Your task to perform on an android device: What's the weather today? Image 0: 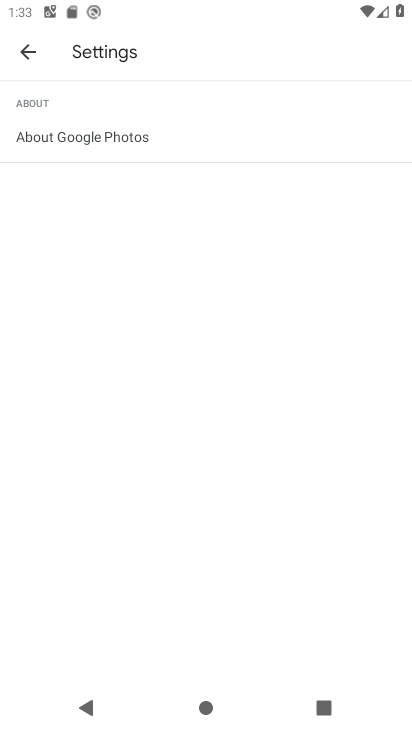
Step 0: press home button
Your task to perform on an android device: What's the weather today? Image 1: 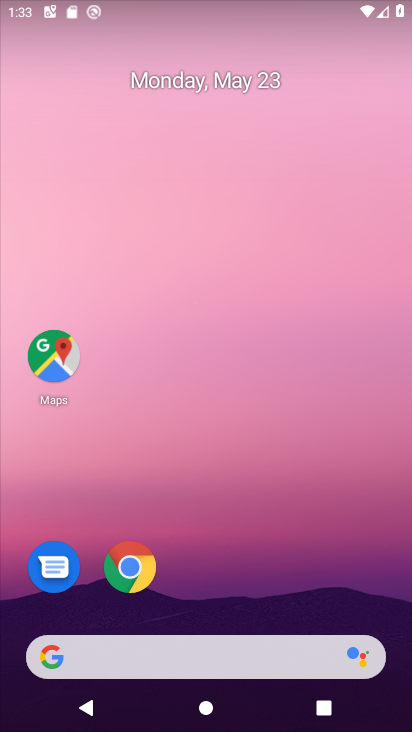
Step 1: drag from (234, 600) to (240, 113)
Your task to perform on an android device: What's the weather today? Image 2: 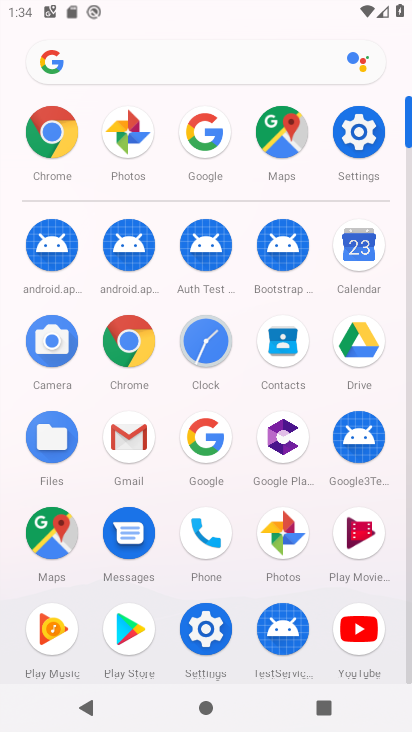
Step 2: click (215, 449)
Your task to perform on an android device: What's the weather today? Image 3: 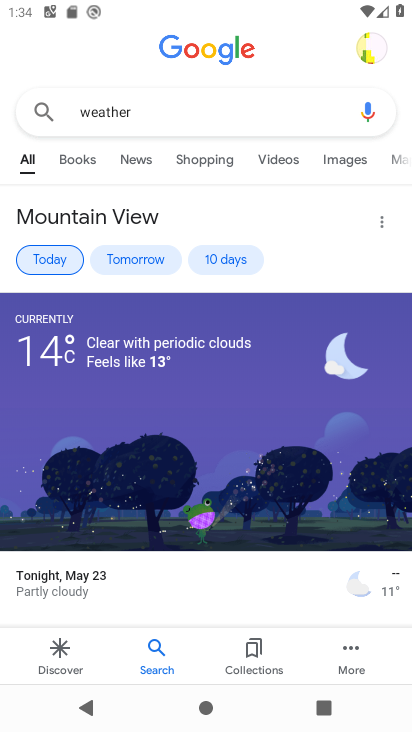
Step 3: task complete